Your task to perform on an android device: Show me popular videos on Youtube Image 0: 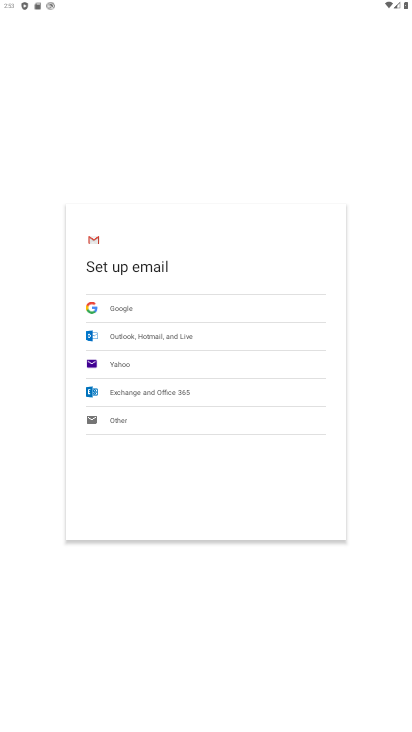
Step 0: press home button
Your task to perform on an android device: Show me popular videos on Youtube Image 1: 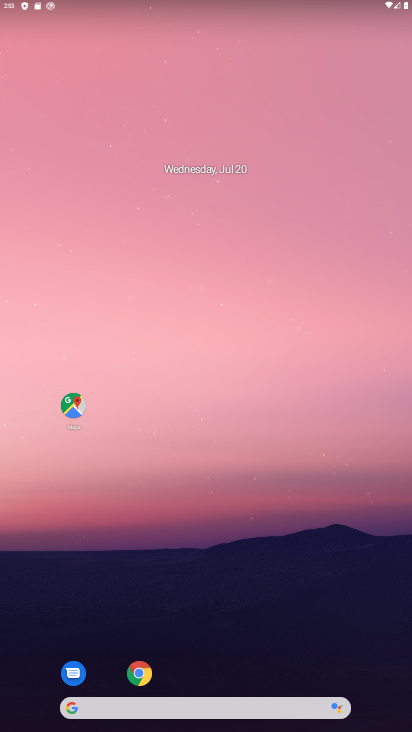
Step 1: drag from (290, 389) to (212, 35)
Your task to perform on an android device: Show me popular videos on Youtube Image 2: 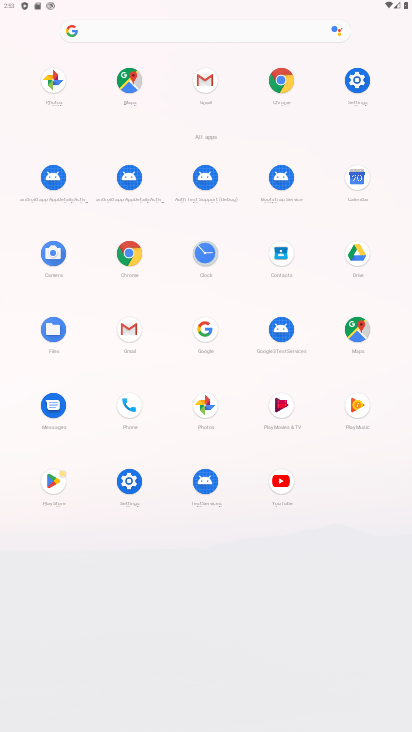
Step 2: click (280, 475)
Your task to perform on an android device: Show me popular videos on Youtube Image 3: 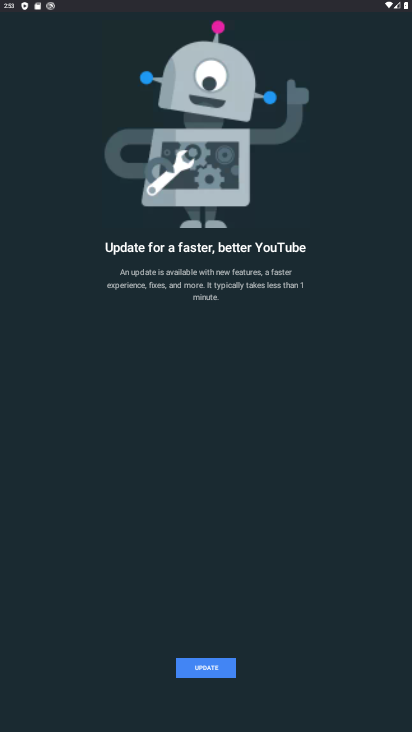
Step 3: task complete